Your task to perform on an android device: set the timer Image 0: 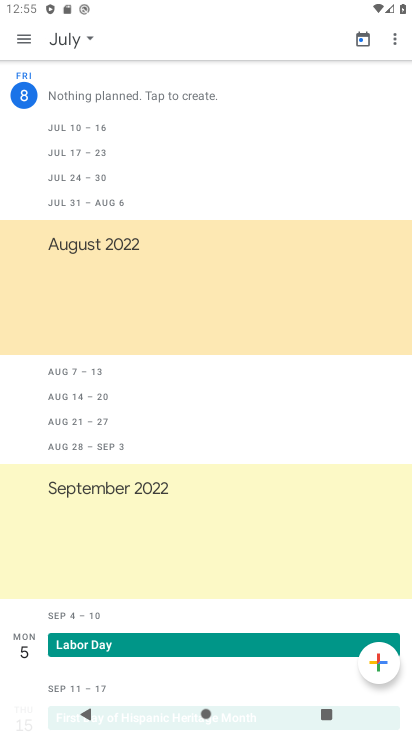
Step 0: press home button
Your task to perform on an android device: set the timer Image 1: 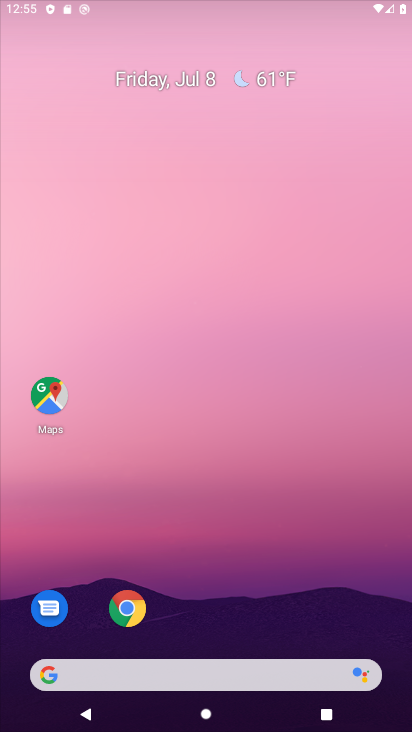
Step 1: drag from (188, 632) to (270, 133)
Your task to perform on an android device: set the timer Image 2: 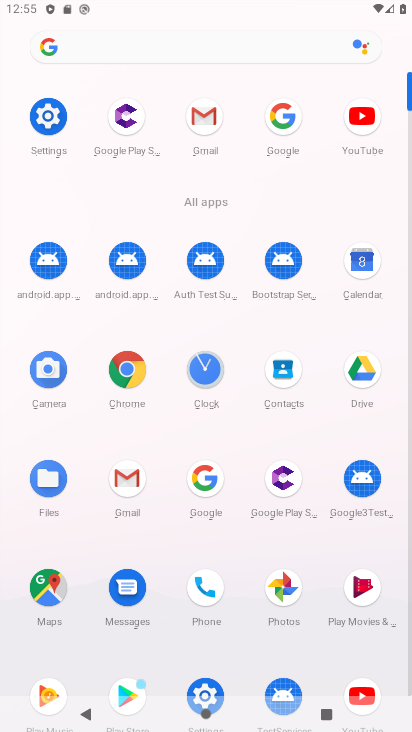
Step 2: click (205, 371)
Your task to perform on an android device: set the timer Image 3: 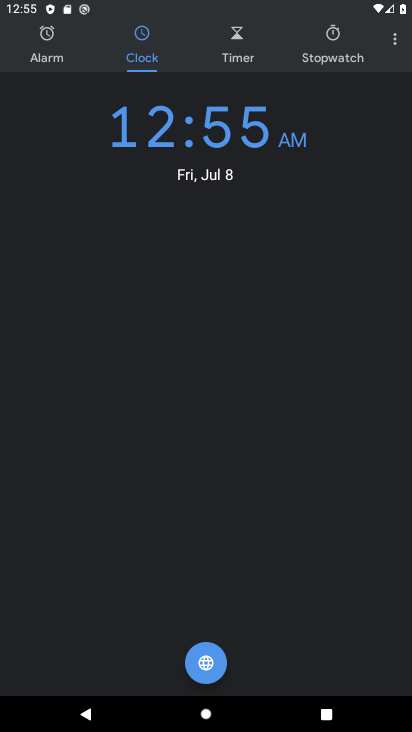
Step 3: click (230, 49)
Your task to perform on an android device: set the timer Image 4: 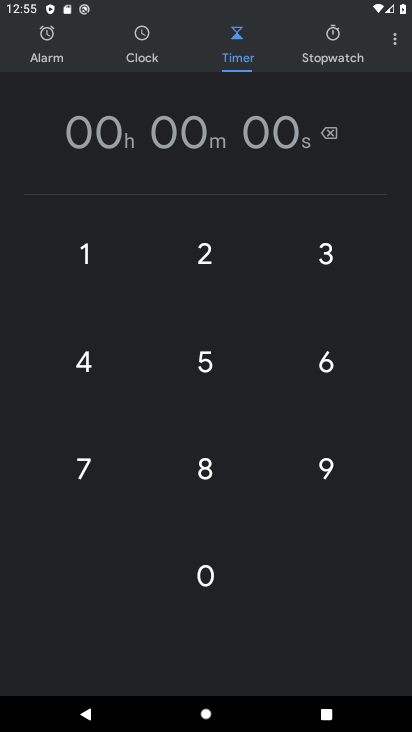
Step 4: click (208, 247)
Your task to perform on an android device: set the timer Image 5: 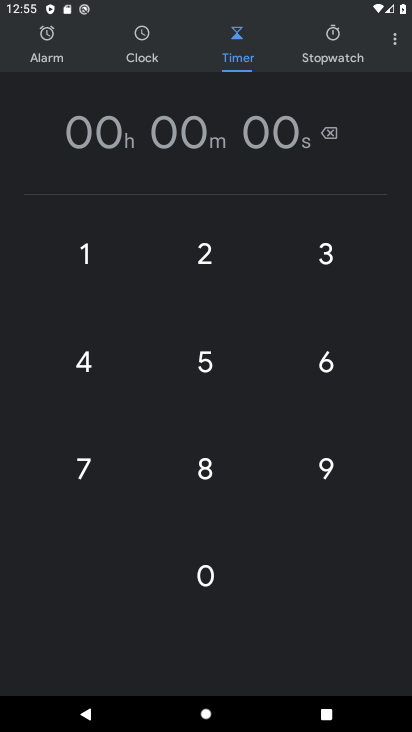
Step 5: click (208, 247)
Your task to perform on an android device: set the timer Image 6: 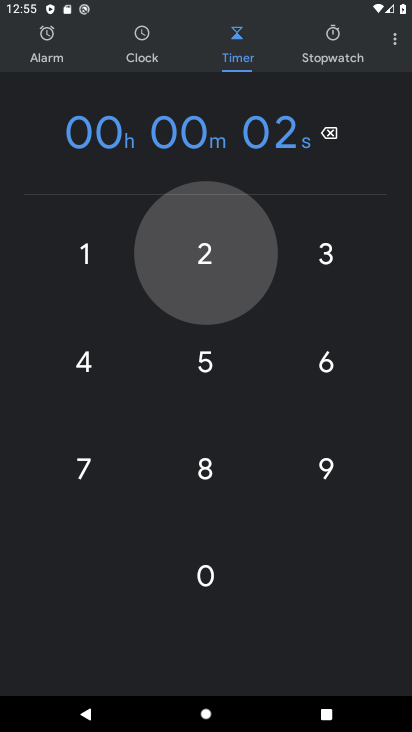
Step 6: click (208, 247)
Your task to perform on an android device: set the timer Image 7: 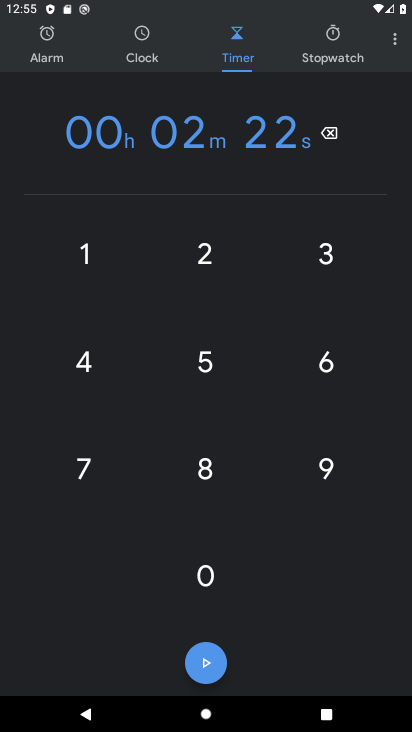
Step 7: task complete